Your task to perform on an android device: check out phone information Image 0: 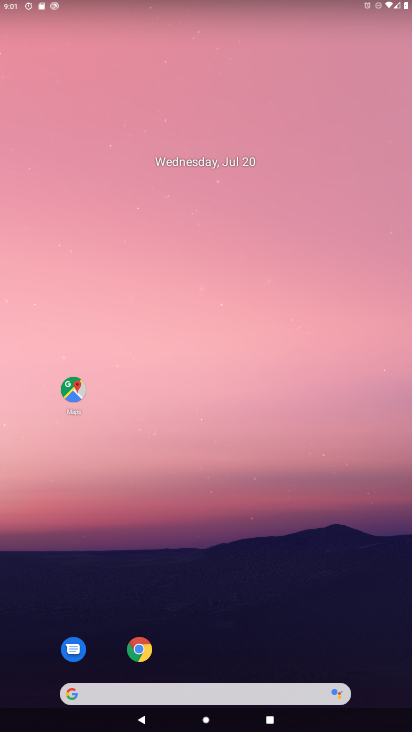
Step 0: drag from (167, 696) to (284, 88)
Your task to perform on an android device: check out phone information Image 1: 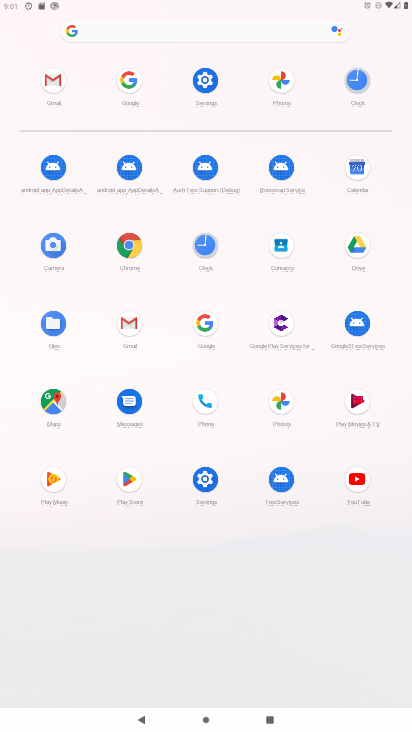
Step 1: click (205, 78)
Your task to perform on an android device: check out phone information Image 2: 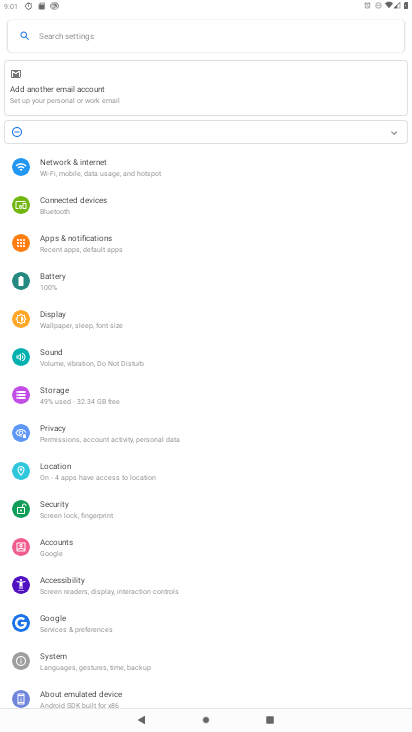
Step 2: drag from (77, 420) to (105, 340)
Your task to perform on an android device: check out phone information Image 3: 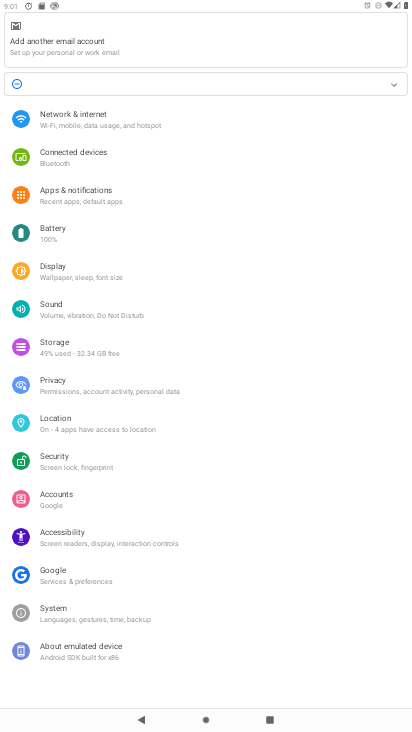
Step 3: click (49, 649)
Your task to perform on an android device: check out phone information Image 4: 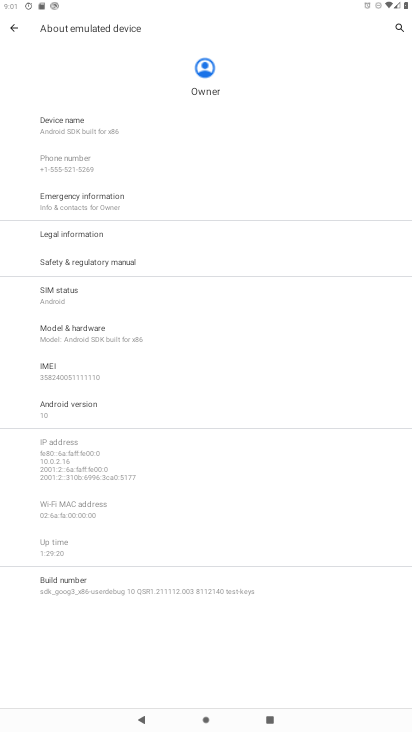
Step 4: task complete